Your task to perform on an android device: check storage Image 0: 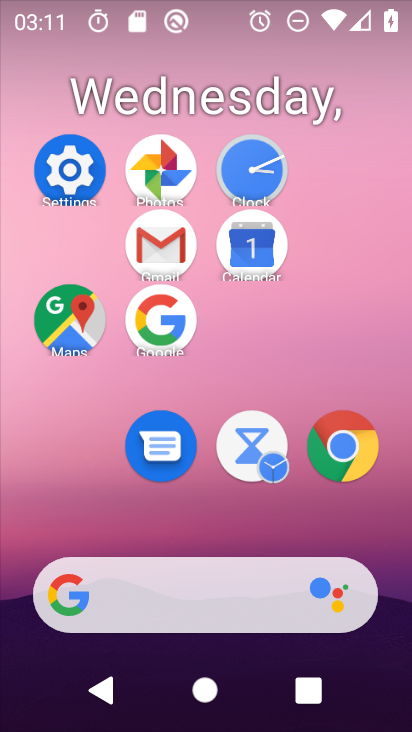
Step 0: click (77, 170)
Your task to perform on an android device: check storage Image 1: 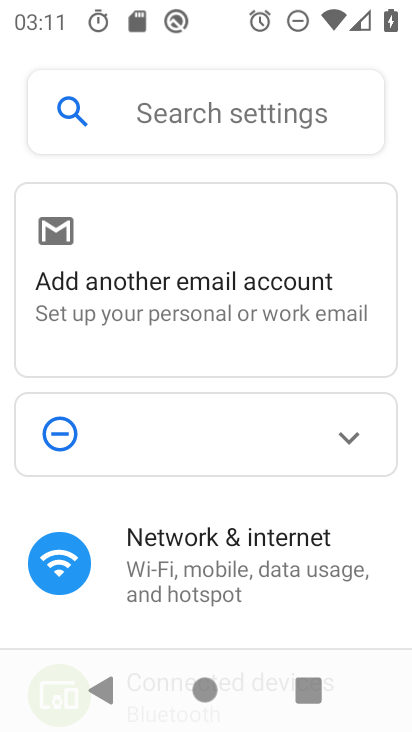
Step 1: drag from (277, 561) to (307, 11)
Your task to perform on an android device: check storage Image 2: 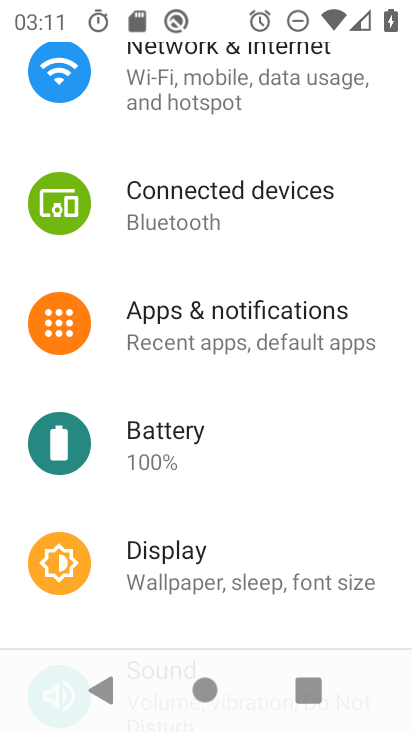
Step 2: drag from (224, 496) to (245, 24)
Your task to perform on an android device: check storage Image 3: 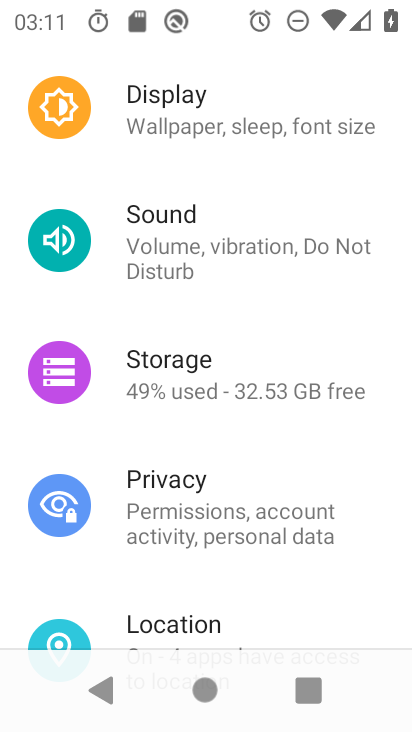
Step 3: click (221, 381)
Your task to perform on an android device: check storage Image 4: 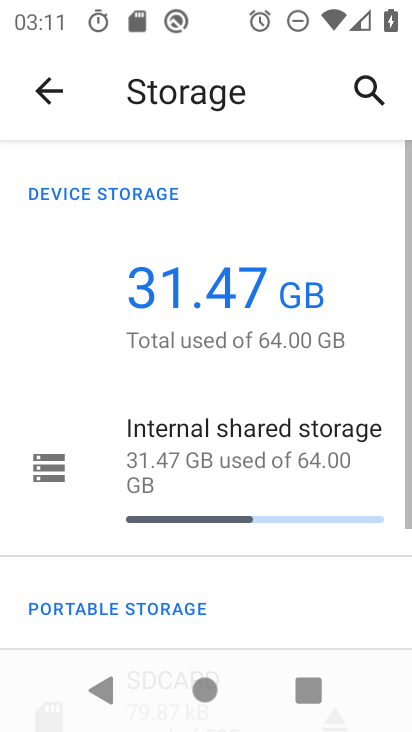
Step 4: task complete